Your task to perform on an android device: Check the weather Image 0: 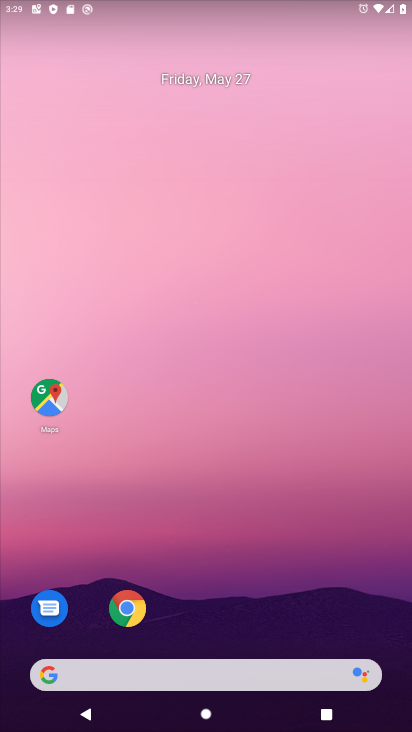
Step 0: drag from (164, 649) to (198, 237)
Your task to perform on an android device: Check the weather Image 1: 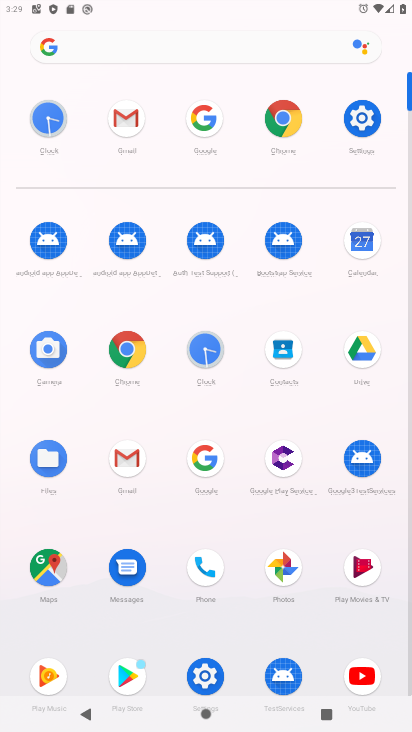
Step 1: click (213, 458)
Your task to perform on an android device: Check the weather Image 2: 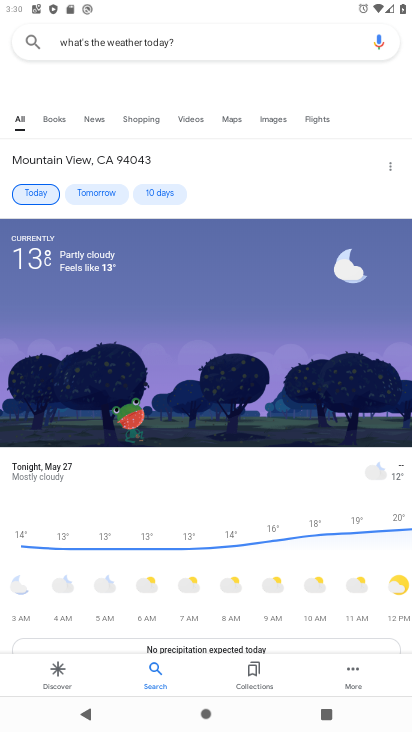
Step 2: task complete